Your task to perform on an android device: Open the Play Movies app and select the watchlist tab. Image 0: 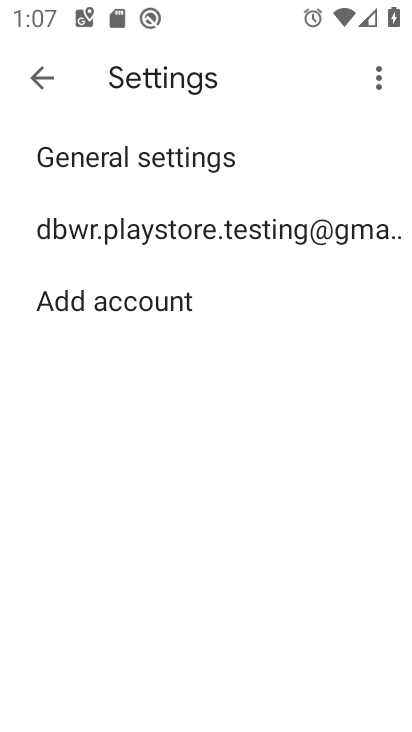
Step 0: press home button
Your task to perform on an android device: Open the Play Movies app and select the watchlist tab. Image 1: 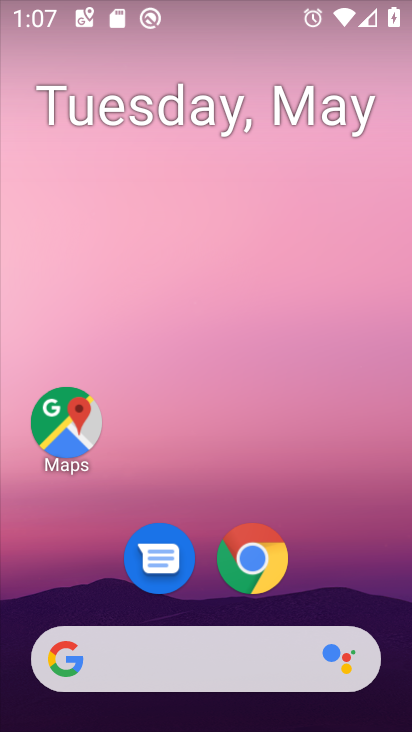
Step 1: drag from (334, 571) to (274, 94)
Your task to perform on an android device: Open the Play Movies app and select the watchlist tab. Image 2: 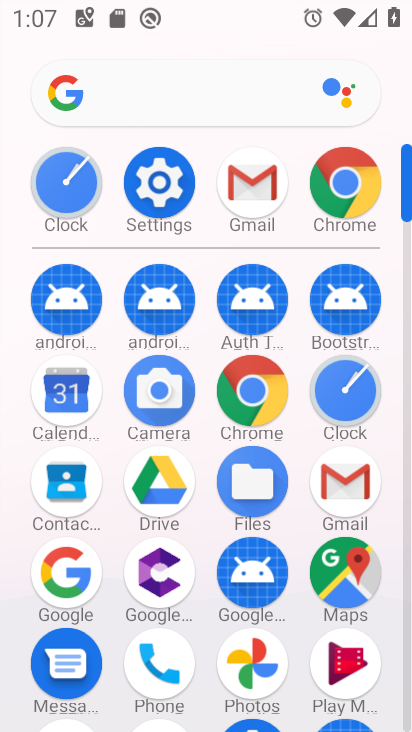
Step 2: click (362, 670)
Your task to perform on an android device: Open the Play Movies app and select the watchlist tab. Image 3: 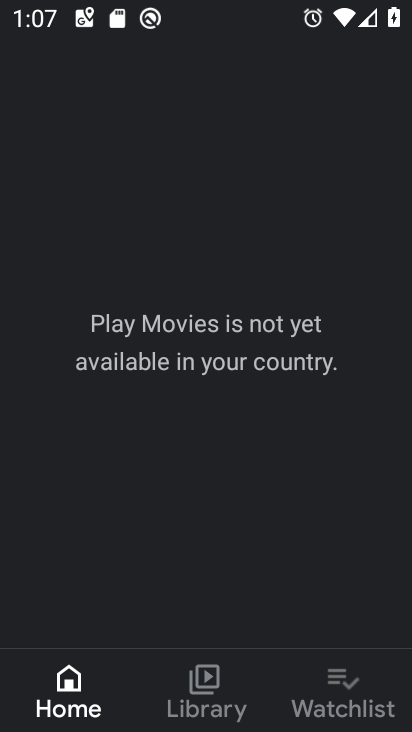
Step 3: click (341, 704)
Your task to perform on an android device: Open the Play Movies app and select the watchlist tab. Image 4: 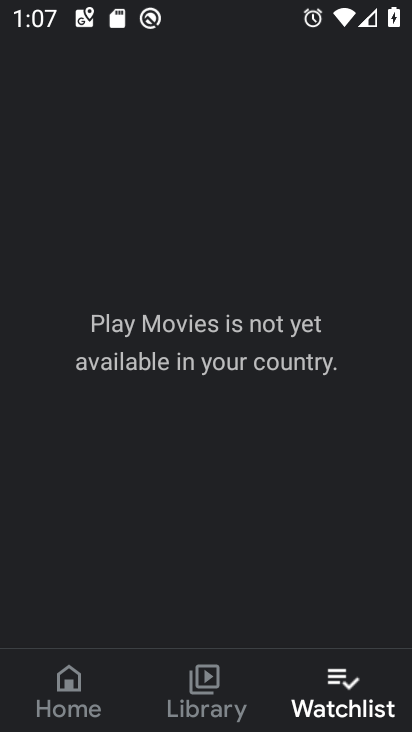
Step 4: task complete